Your task to perform on an android device: Go to network settings Image 0: 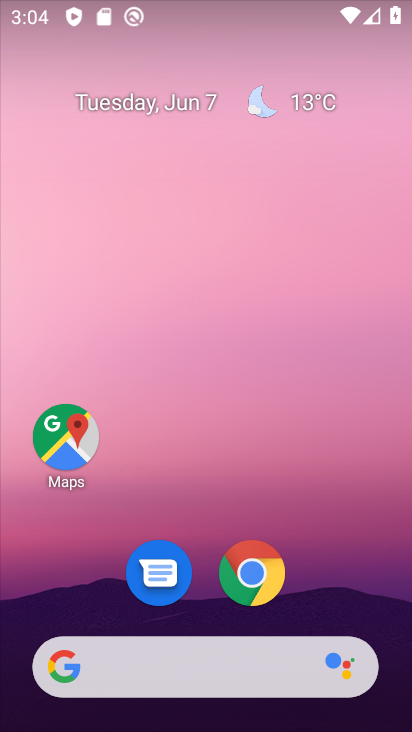
Step 0: drag from (358, 581) to (268, 115)
Your task to perform on an android device: Go to network settings Image 1: 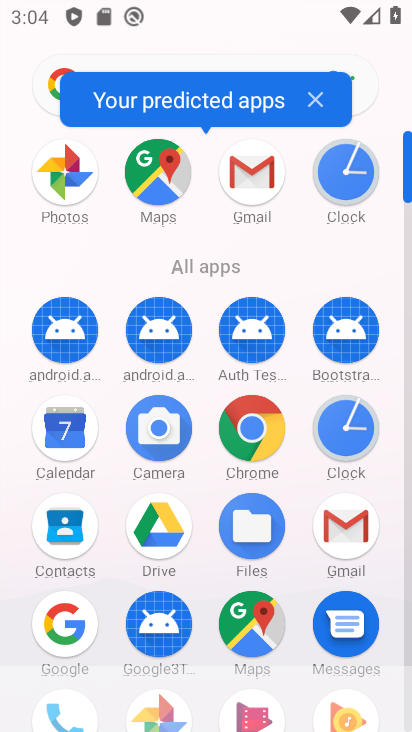
Step 1: click (410, 597)
Your task to perform on an android device: Go to network settings Image 2: 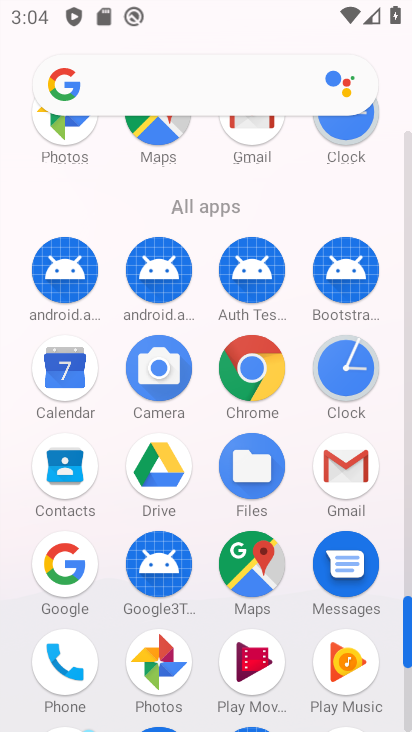
Step 2: drag from (396, 570) to (350, 359)
Your task to perform on an android device: Go to network settings Image 3: 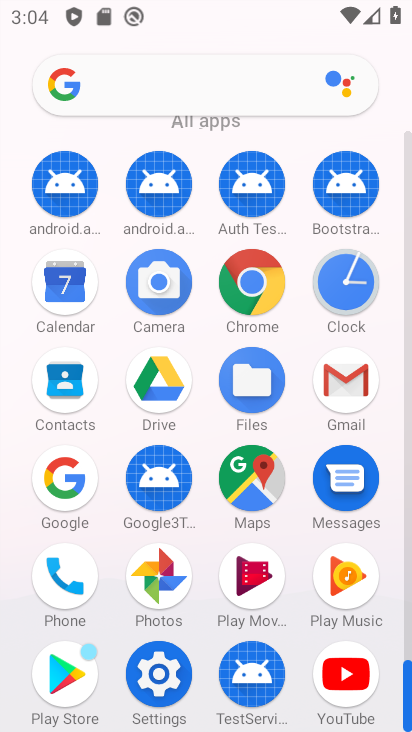
Step 3: click (177, 690)
Your task to perform on an android device: Go to network settings Image 4: 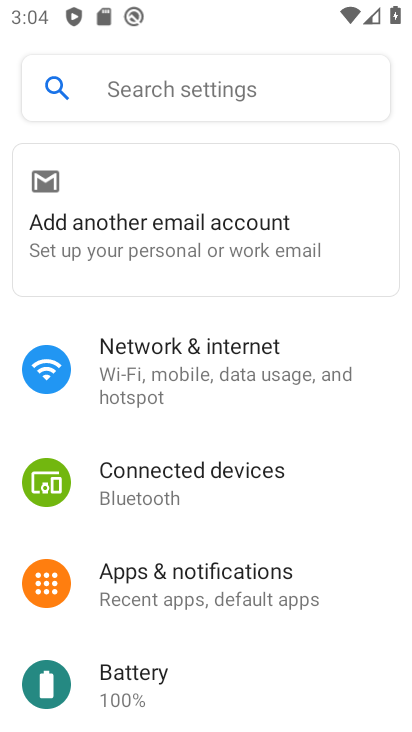
Step 4: click (231, 360)
Your task to perform on an android device: Go to network settings Image 5: 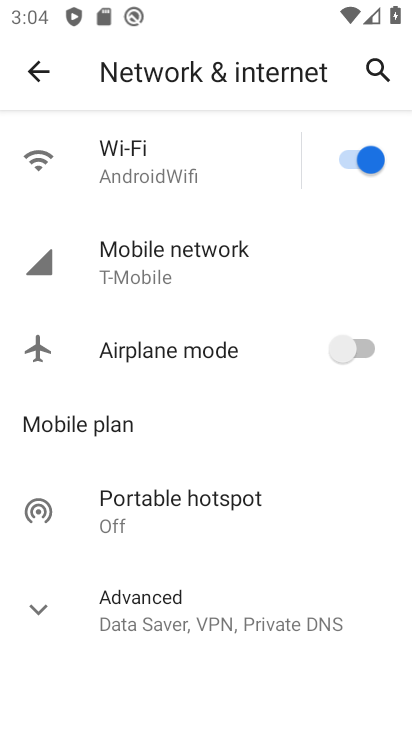
Step 5: task complete